Your task to perform on an android device: check data usage Image 0: 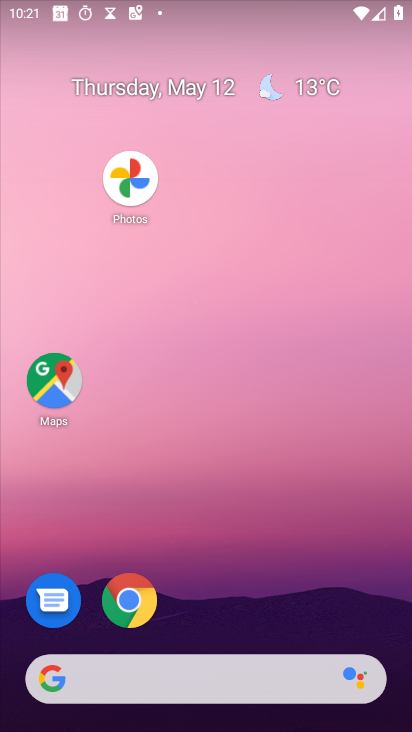
Step 0: drag from (282, 534) to (203, 65)
Your task to perform on an android device: check data usage Image 1: 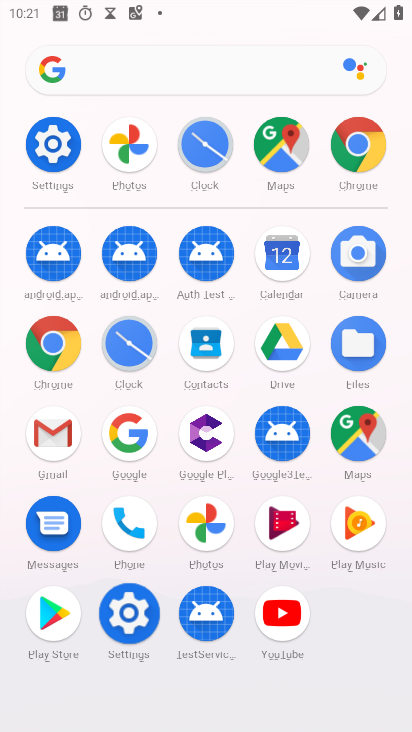
Step 1: click (52, 146)
Your task to perform on an android device: check data usage Image 2: 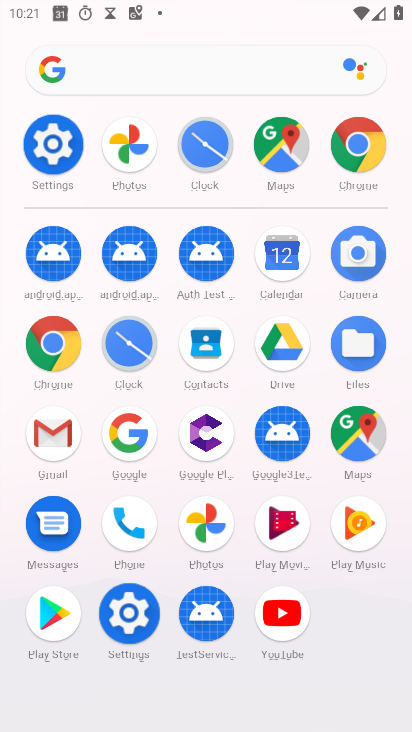
Step 2: click (52, 146)
Your task to perform on an android device: check data usage Image 3: 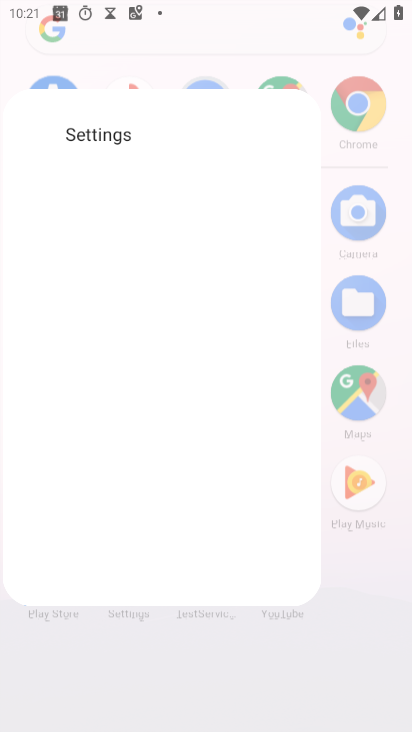
Step 3: click (52, 146)
Your task to perform on an android device: check data usage Image 4: 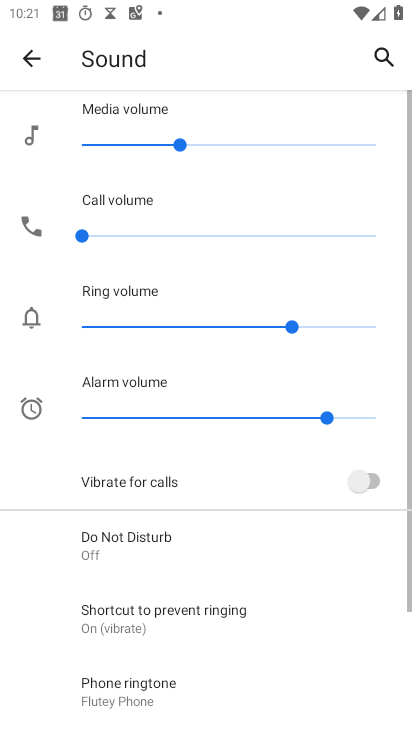
Step 4: click (31, 55)
Your task to perform on an android device: check data usage Image 5: 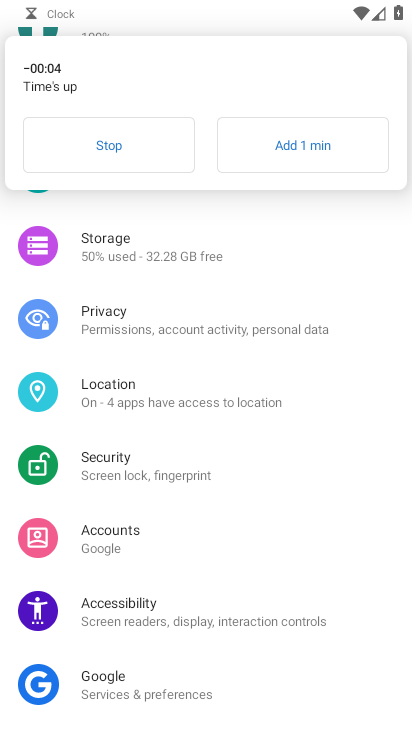
Step 5: click (111, 143)
Your task to perform on an android device: check data usage Image 6: 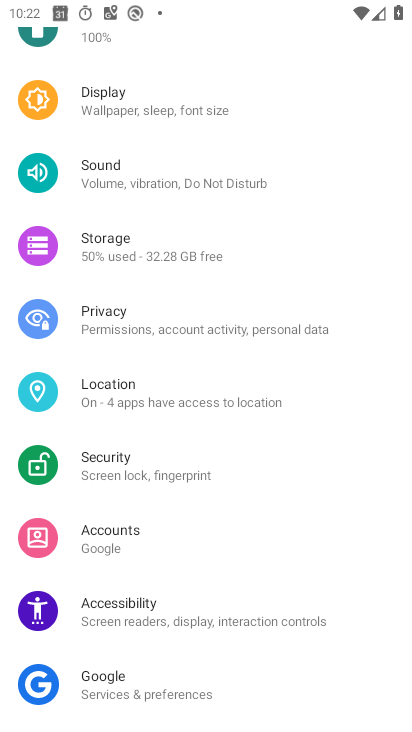
Step 6: drag from (221, 335) to (251, 681)
Your task to perform on an android device: check data usage Image 7: 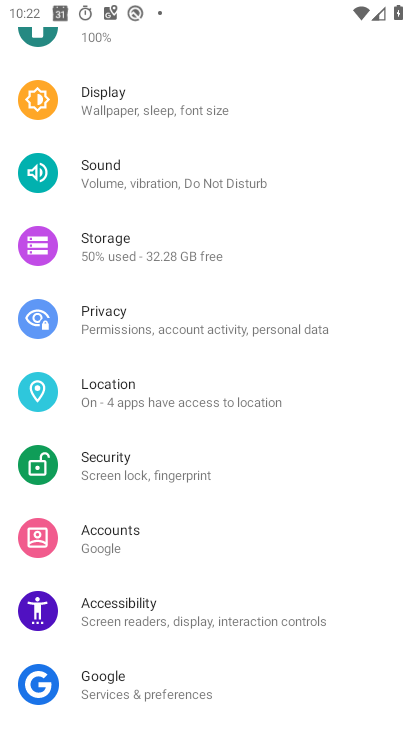
Step 7: drag from (167, 199) to (195, 495)
Your task to perform on an android device: check data usage Image 8: 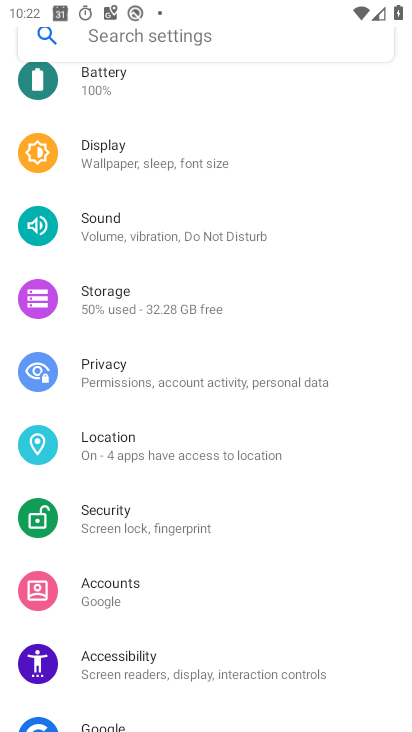
Step 8: drag from (145, 124) to (211, 511)
Your task to perform on an android device: check data usage Image 9: 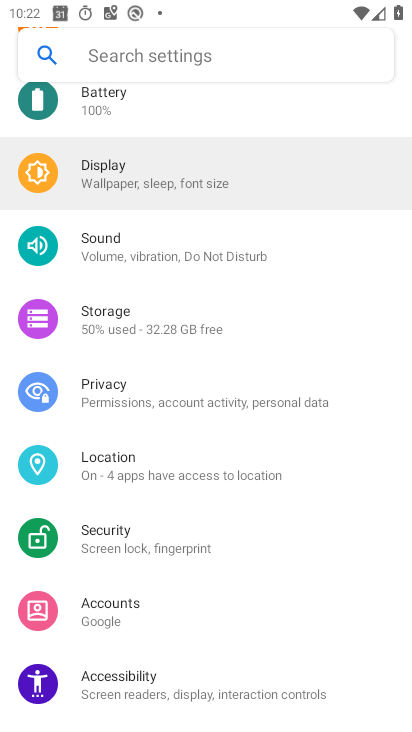
Step 9: drag from (155, 189) to (191, 499)
Your task to perform on an android device: check data usage Image 10: 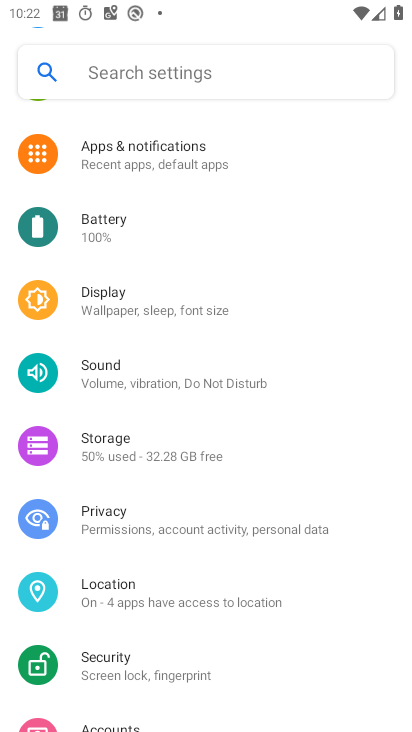
Step 10: drag from (156, 232) to (178, 551)
Your task to perform on an android device: check data usage Image 11: 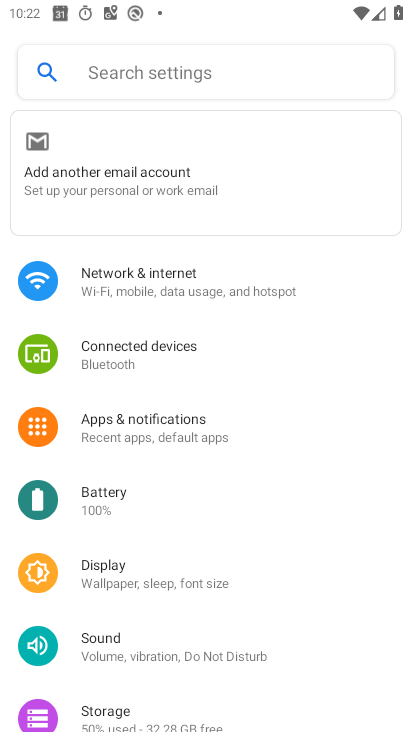
Step 11: click (155, 286)
Your task to perform on an android device: check data usage Image 12: 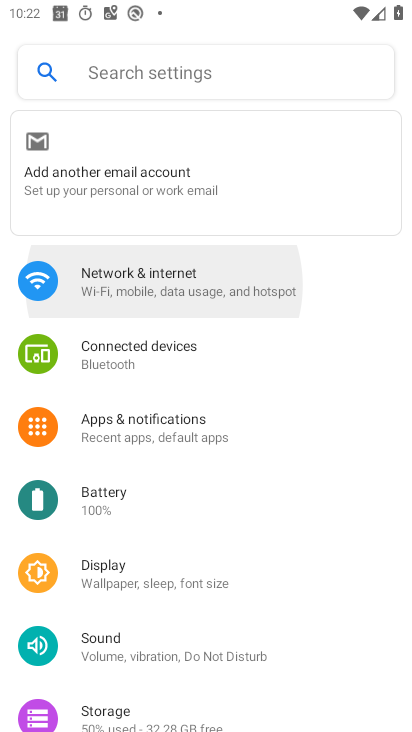
Step 12: click (156, 285)
Your task to perform on an android device: check data usage Image 13: 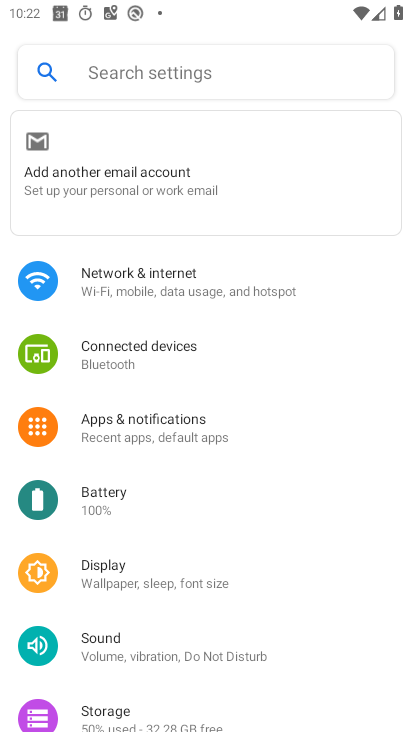
Step 13: click (156, 285)
Your task to perform on an android device: check data usage Image 14: 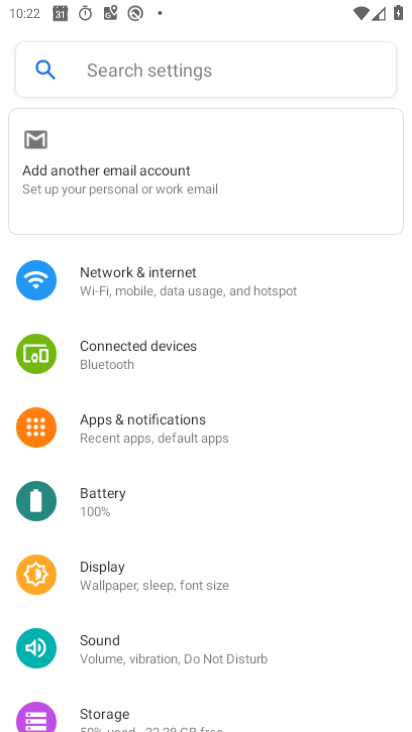
Step 14: click (156, 285)
Your task to perform on an android device: check data usage Image 15: 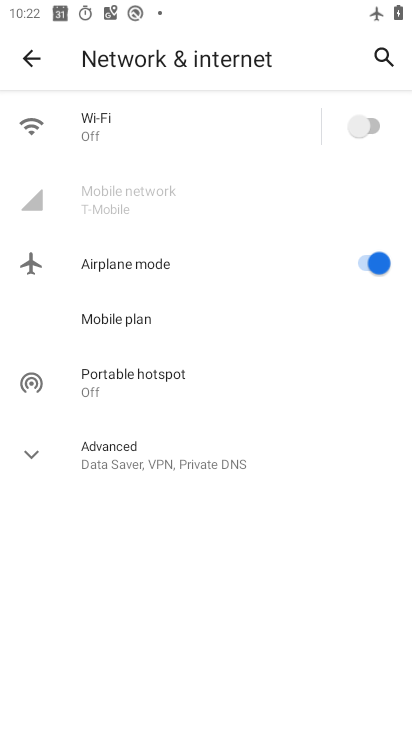
Step 15: click (361, 118)
Your task to perform on an android device: check data usage Image 16: 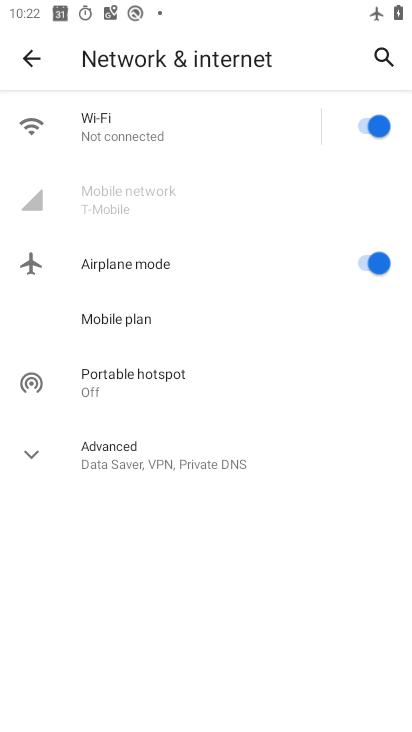
Step 16: task complete